Your task to perform on an android device: empty trash in the gmail app Image 0: 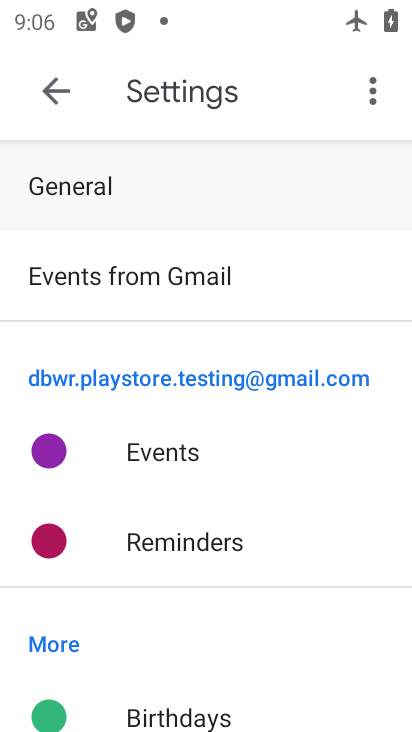
Step 0: press home button
Your task to perform on an android device: empty trash in the gmail app Image 1: 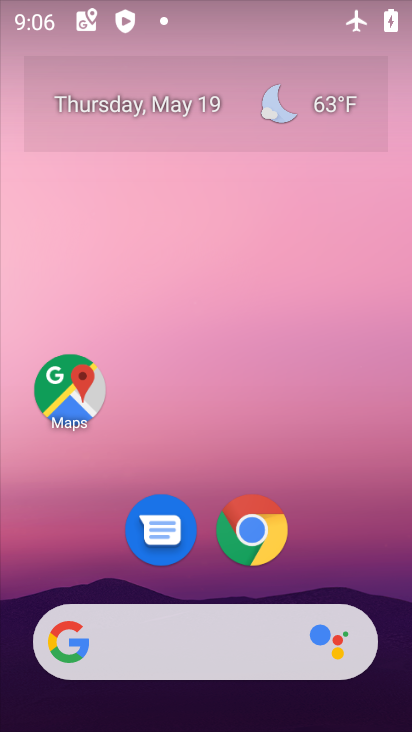
Step 1: drag from (257, 624) to (312, 231)
Your task to perform on an android device: empty trash in the gmail app Image 2: 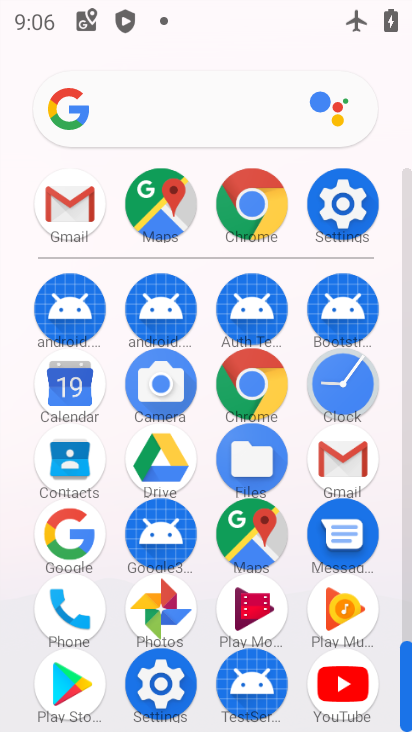
Step 2: click (365, 460)
Your task to perform on an android device: empty trash in the gmail app Image 3: 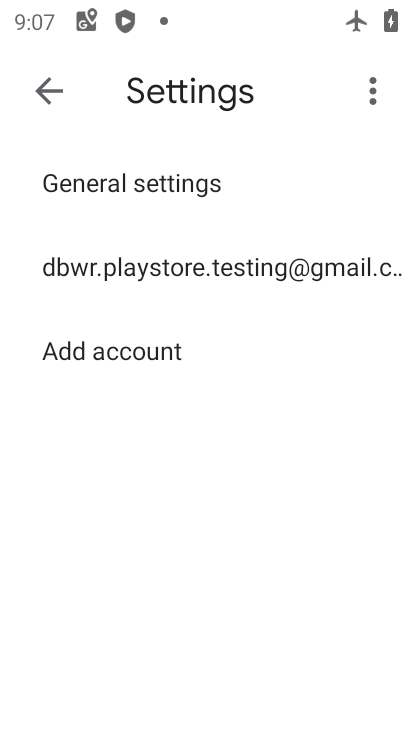
Step 3: click (51, 92)
Your task to perform on an android device: empty trash in the gmail app Image 4: 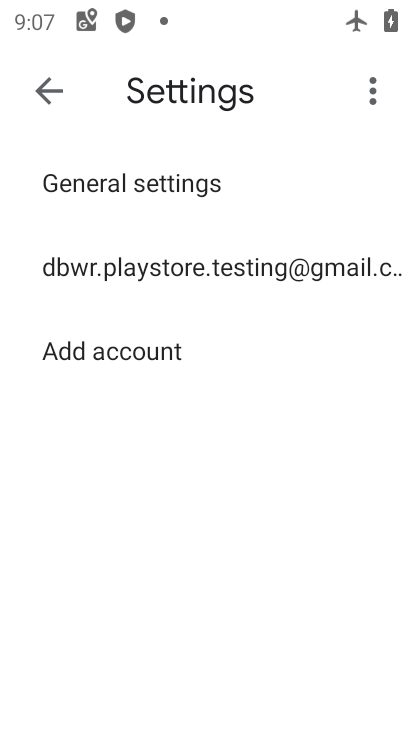
Step 4: click (46, 90)
Your task to perform on an android device: empty trash in the gmail app Image 5: 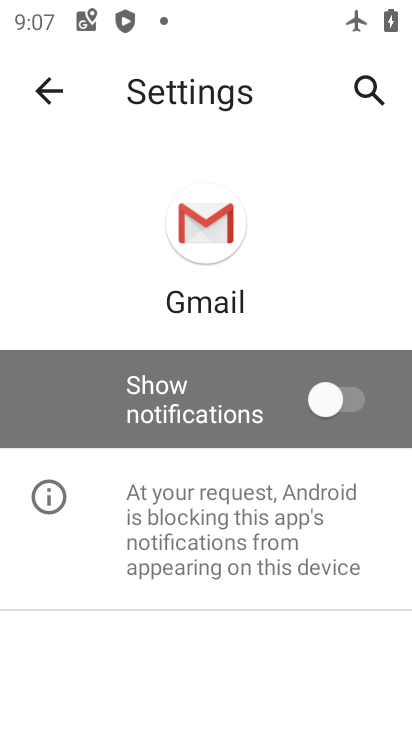
Step 5: click (46, 90)
Your task to perform on an android device: empty trash in the gmail app Image 6: 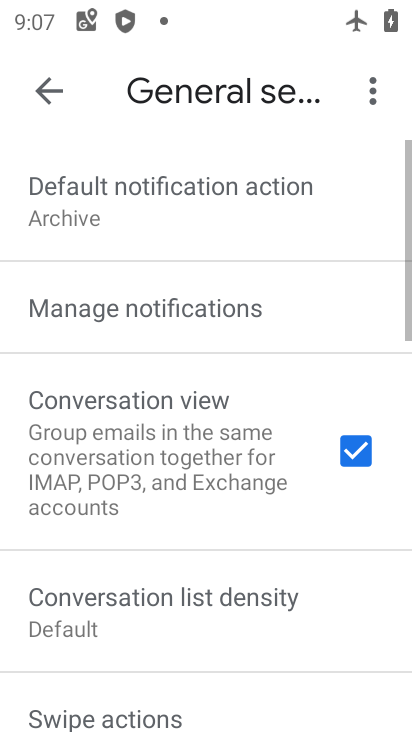
Step 6: click (46, 90)
Your task to perform on an android device: empty trash in the gmail app Image 7: 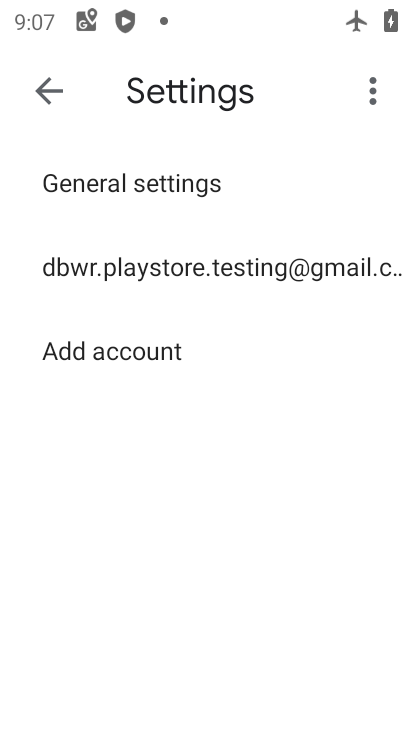
Step 7: click (46, 90)
Your task to perform on an android device: empty trash in the gmail app Image 8: 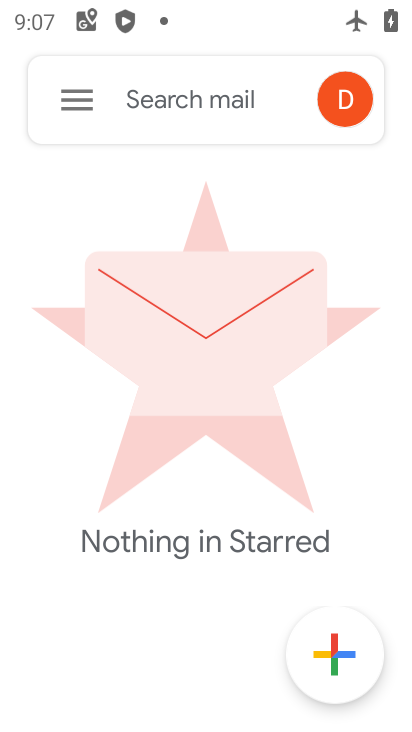
Step 8: click (94, 105)
Your task to perform on an android device: empty trash in the gmail app Image 9: 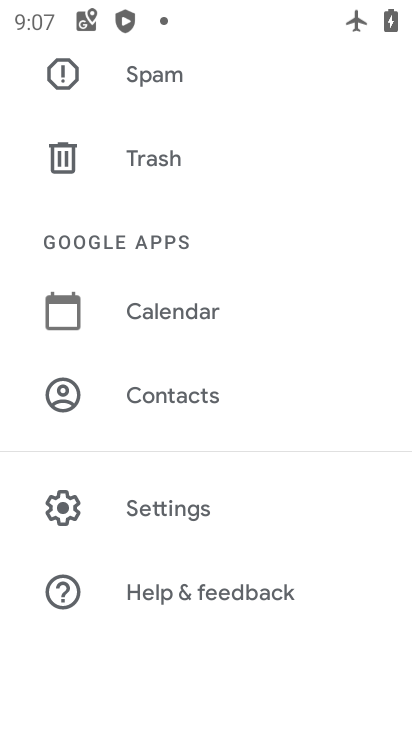
Step 9: click (218, 170)
Your task to perform on an android device: empty trash in the gmail app Image 10: 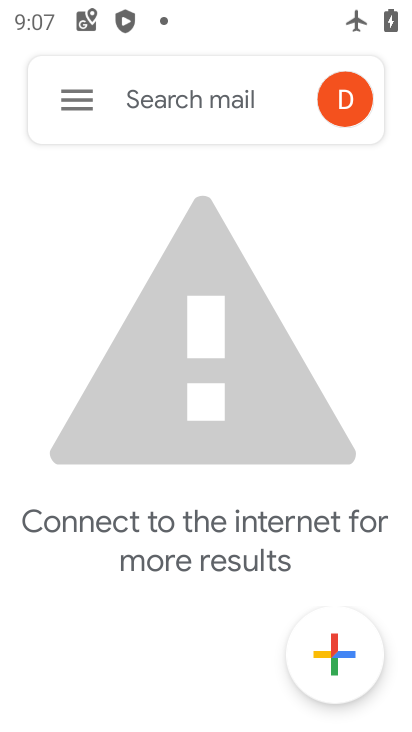
Step 10: task complete